Your task to perform on an android device: open a bookmark in the chrome app Image 0: 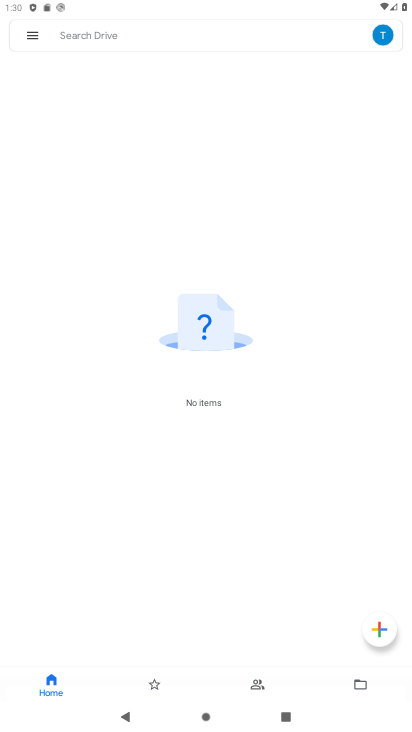
Step 0: press home button
Your task to perform on an android device: open a bookmark in the chrome app Image 1: 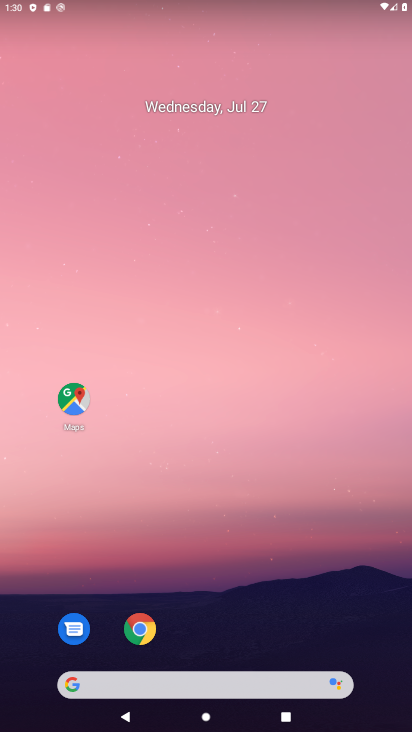
Step 1: drag from (219, 640) to (285, 224)
Your task to perform on an android device: open a bookmark in the chrome app Image 2: 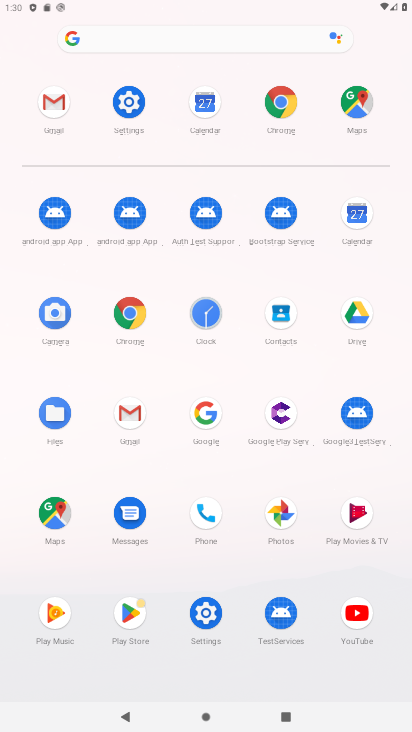
Step 2: click (274, 101)
Your task to perform on an android device: open a bookmark in the chrome app Image 3: 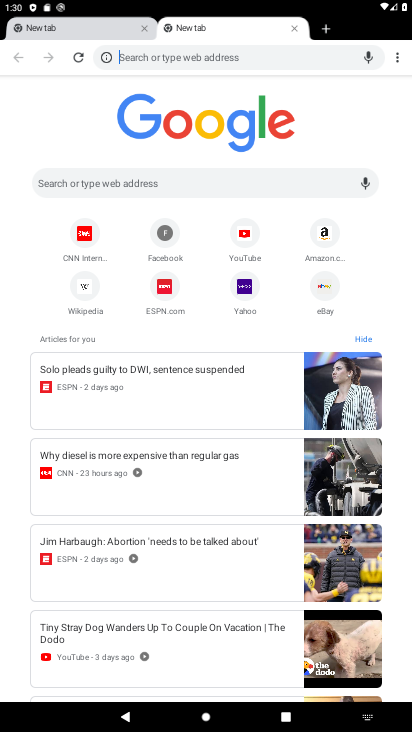
Step 3: drag from (397, 59) to (297, 112)
Your task to perform on an android device: open a bookmark in the chrome app Image 4: 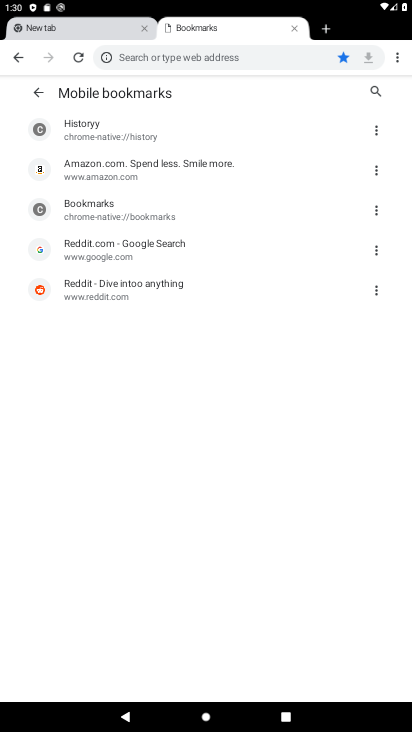
Step 4: click (102, 249)
Your task to perform on an android device: open a bookmark in the chrome app Image 5: 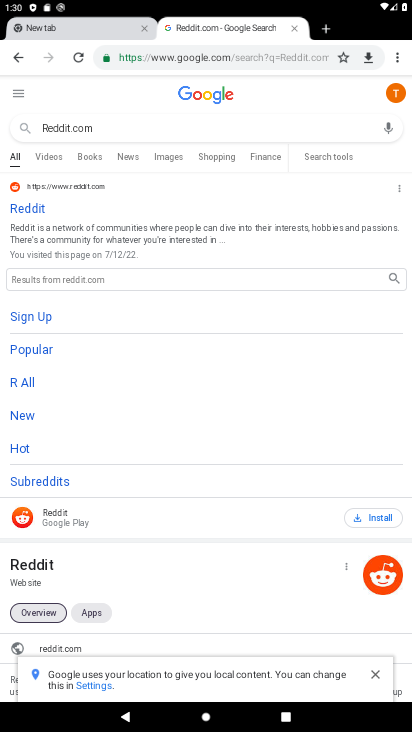
Step 5: task complete